Your task to perform on an android device: Open Yahoo.com Image 0: 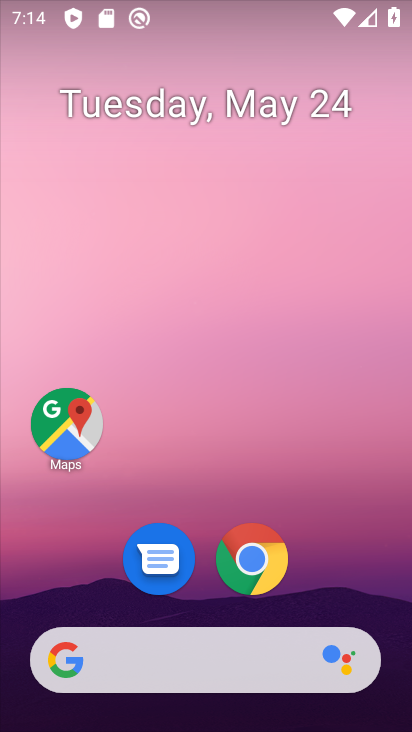
Step 0: click (258, 570)
Your task to perform on an android device: Open Yahoo.com Image 1: 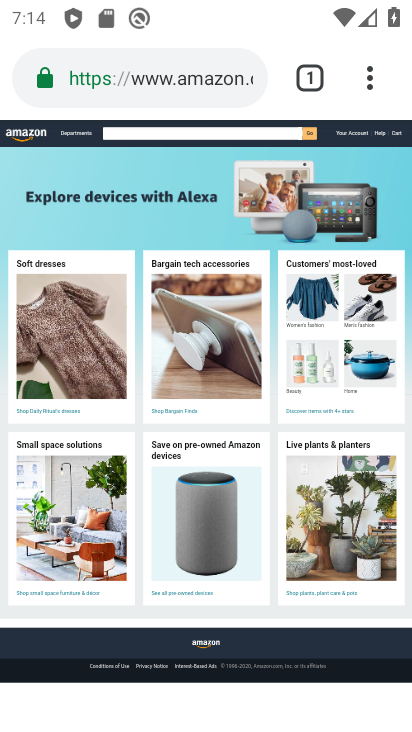
Step 1: press back button
Your task to perform on an android device: Open Yahoo.com Image 2: 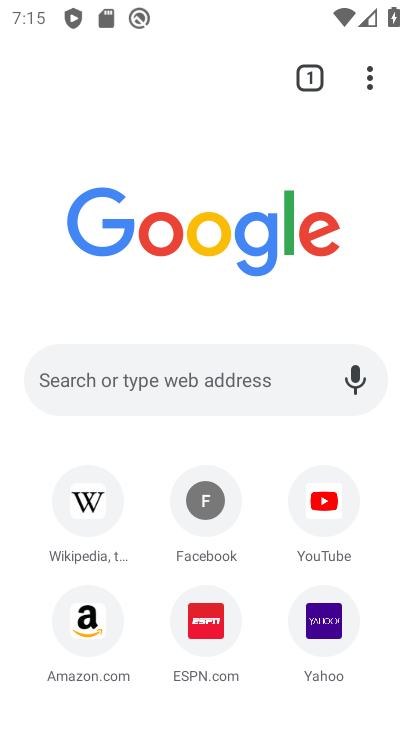
Step 2: click (318, 624)
Your task to perform on an android device: Open Yahoo.com Image 3: 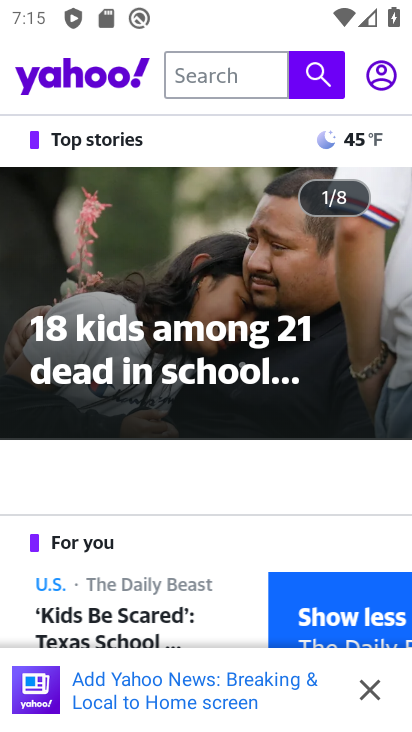
Step 3: task complete